Your task to perform on an android device: turn off data saver in the chrome app Image 0: 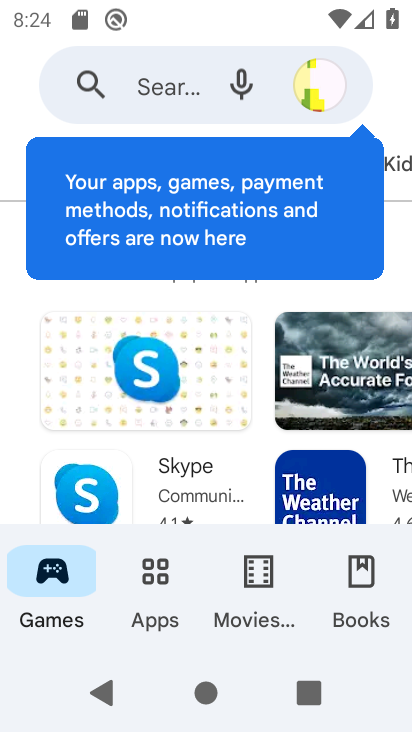
Step 0: press home button
Your task to perform on an android device: turn off data saver in the chrome app Image 1: 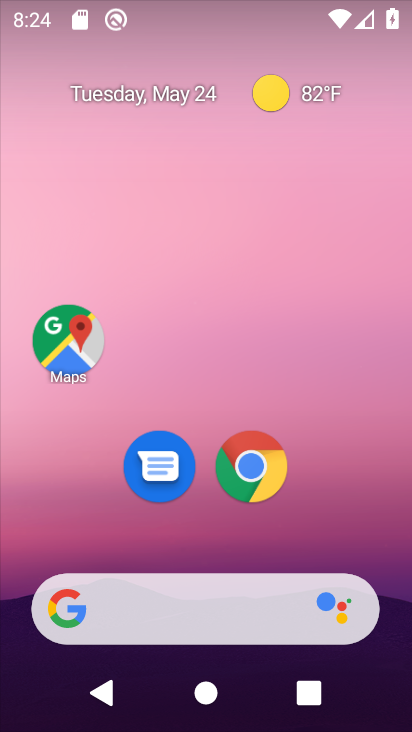
Step 1: click (250, 472)
Your task to perform on an android device: turn off data saver in the chrome app Image 2: 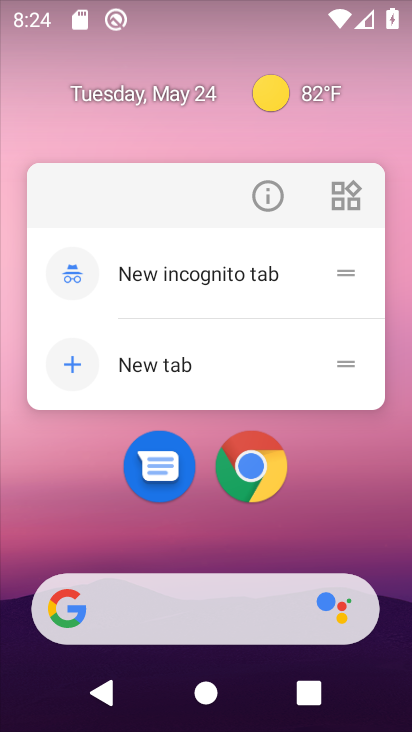
Step 2: click (250, 472)
Your task to perform on an android device: turn off data saver in the chrome app Image 3: 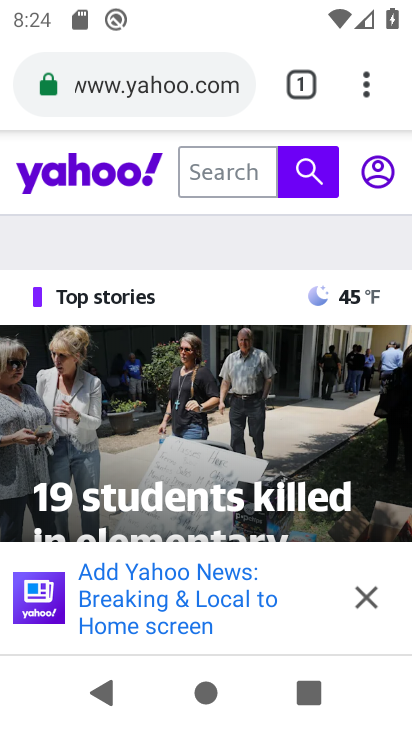
Step 3: click (360, 601)
Your task to perform on an android device: turn off data saver in the chrome app Image 4: 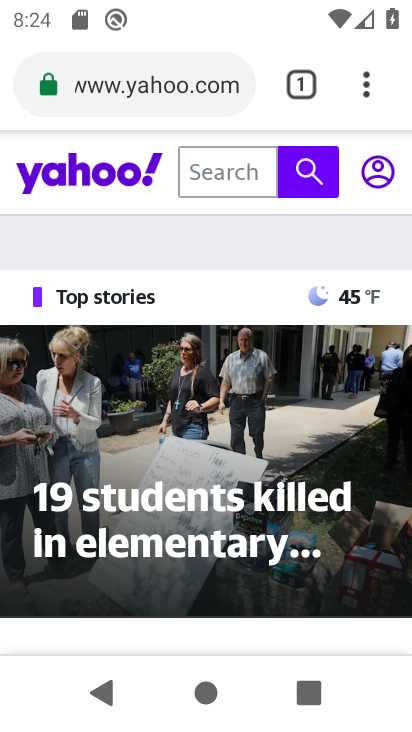
Step 4: press home button
Your task to perform on an android device: turn off data saver in the chrome app Image 5: 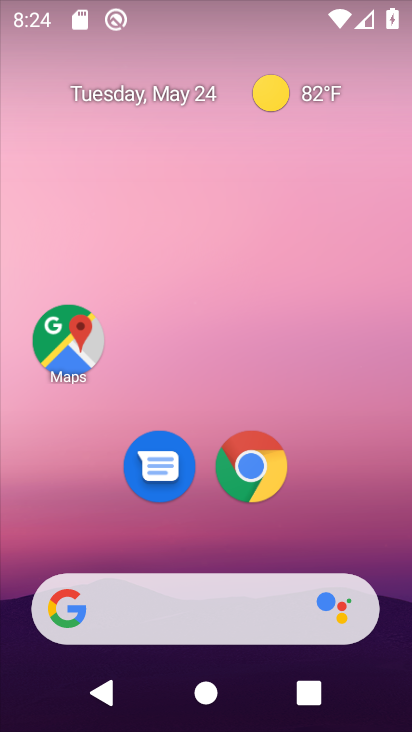
Step 5: click (237, 454)
Your task to perform on an android device: turn off data saver in the chrome app Image 6: 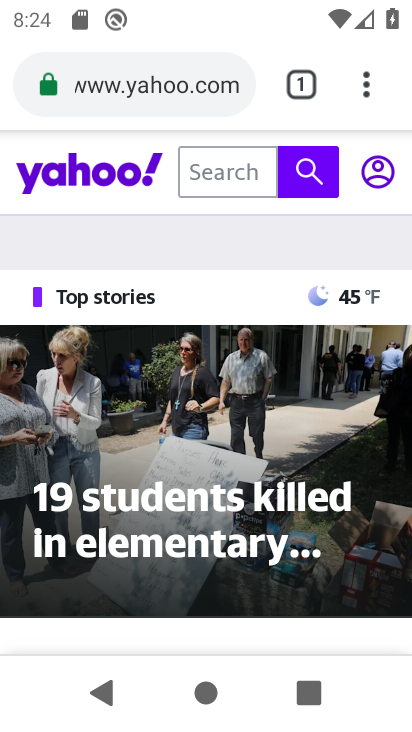
Step 6: click (369, 81)
Your task to perform on an android device: turn off data saver in the chrome app Image 7: 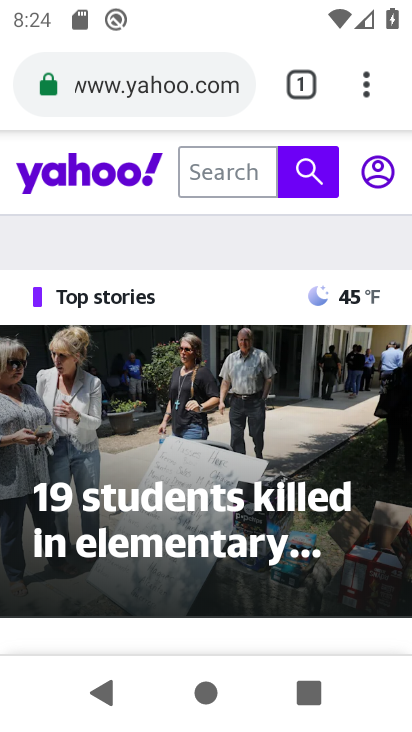
Step 7: click (369, 81)
Your task to perform on an android device: turn off data saver in the chrome app Image 8: 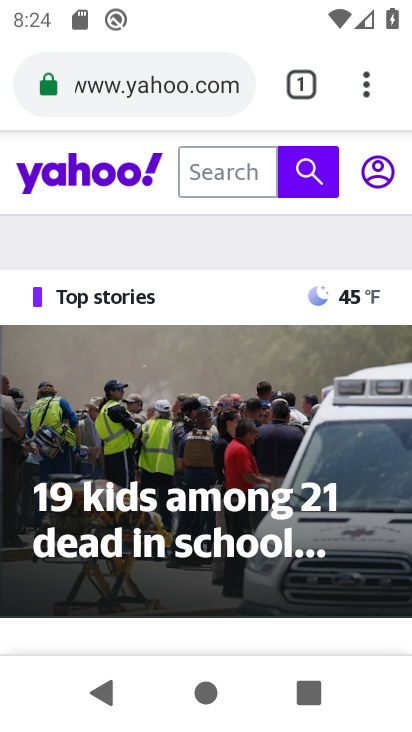
Step 8: click (369, 81)
Your task to perform on an android device: turn off data saver in the chrome app Image 9: 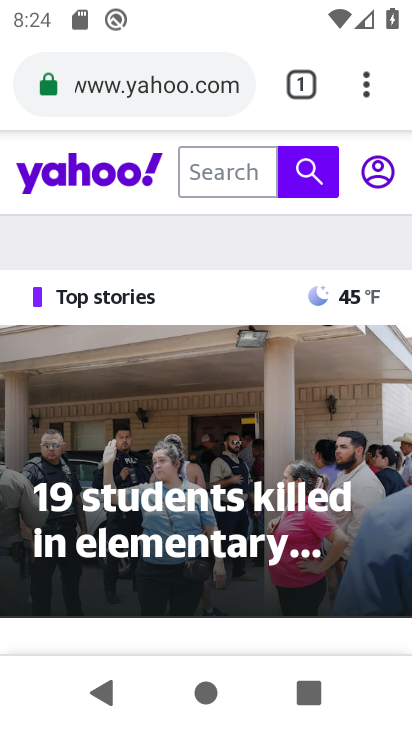
Step 9: click (363, 90)
Your task to perform on an android device: turn off data saver in the chrome app Image 10: 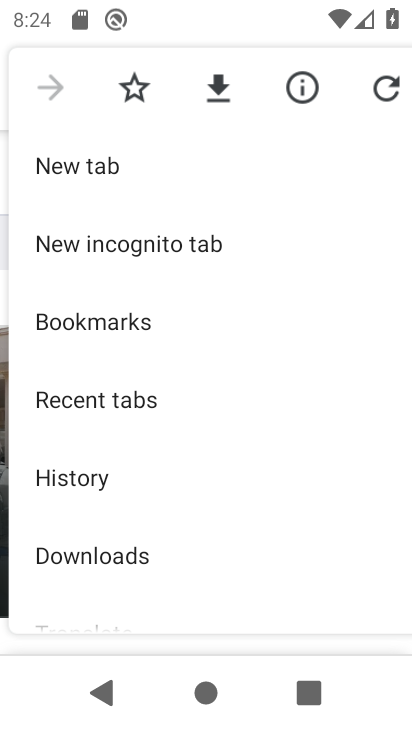
Step 10: drag from (189, 585) to (189, 207)
Your task to perform on an android device: turn off data saver in the chrome app Image 11: 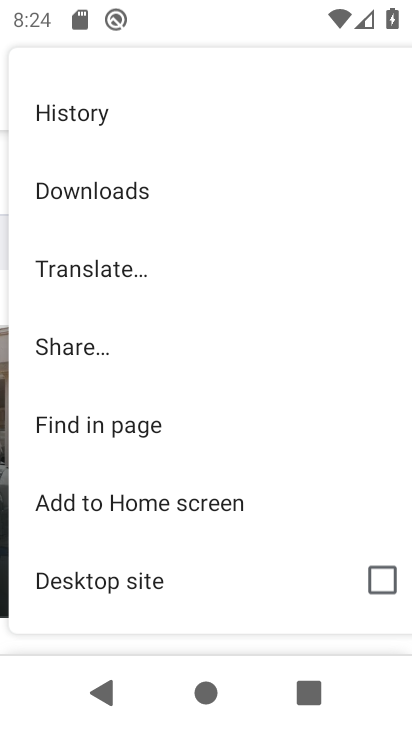
Step 11: drag from (123, 597) to (130, 310)
Your task to perform on an android device: turn off data saver in the chrome app Image 12: 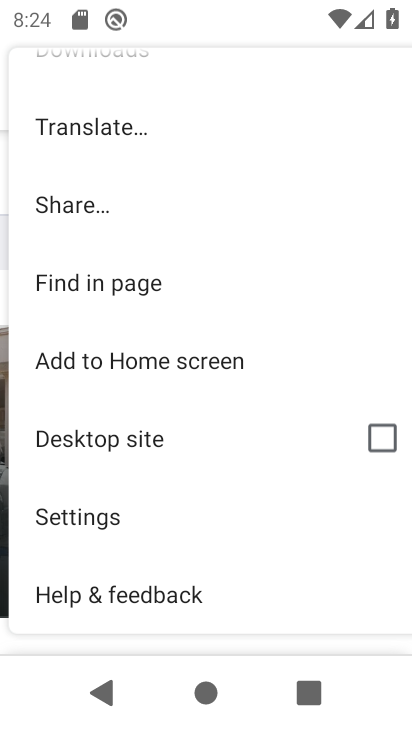
Step 12: click (107, 529)
Your task to perform on an android device: turn off data saver in the chrome app Image 13: 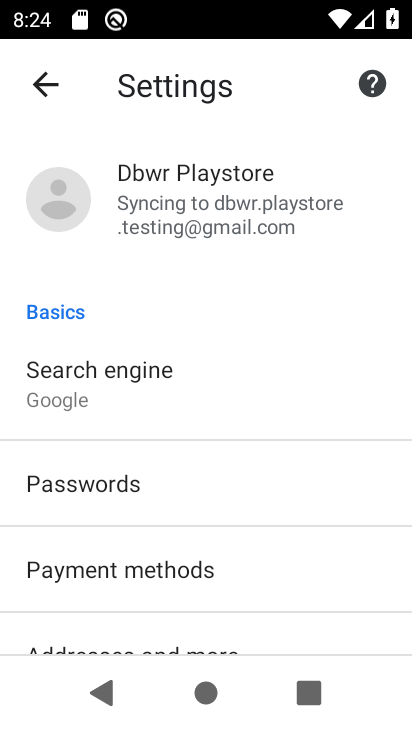
Step 13: drag from (118, 645) to (109, 329)
Your task to perform on an android device: turn off data saver in the chrome app Image 14: 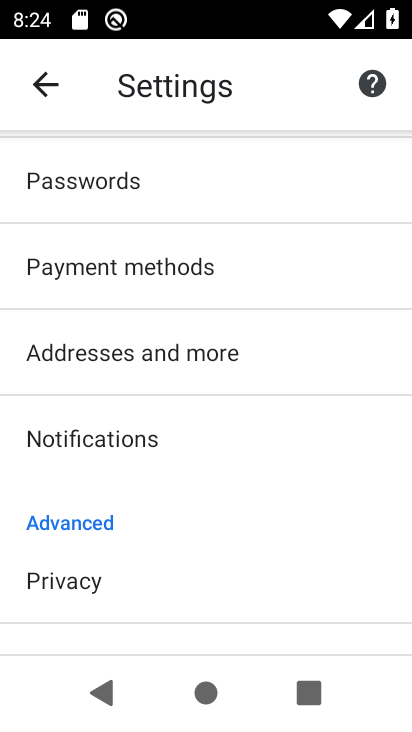
Step 14: drag from (88, 637) to (96, 352)
Your task to perform on an android device: turn off data saver in the chrome app Image 15: 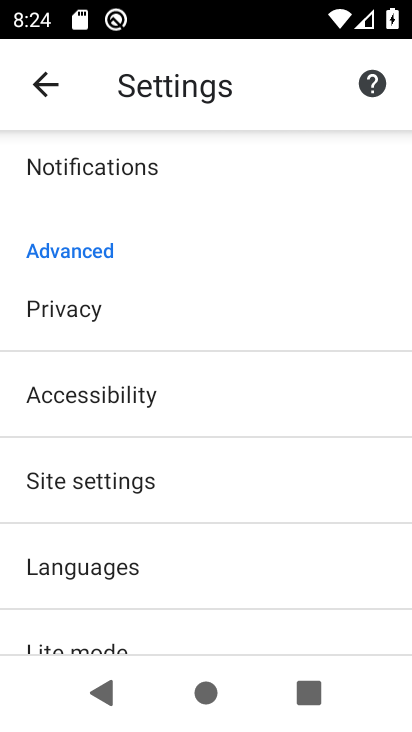
Step 15: click (58, 642)
Your task to perform on an android device: turn off data saver in the chrome app Image 16: 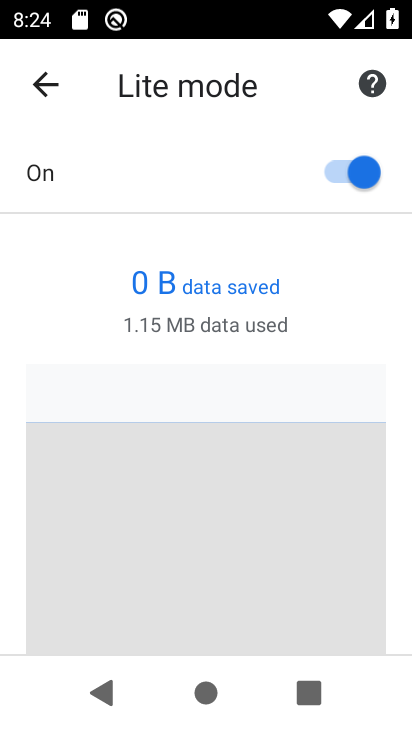
Step 16: click (330, 170)
Your task to perform on an android device: turn off data saver in the chrome app Image 17: 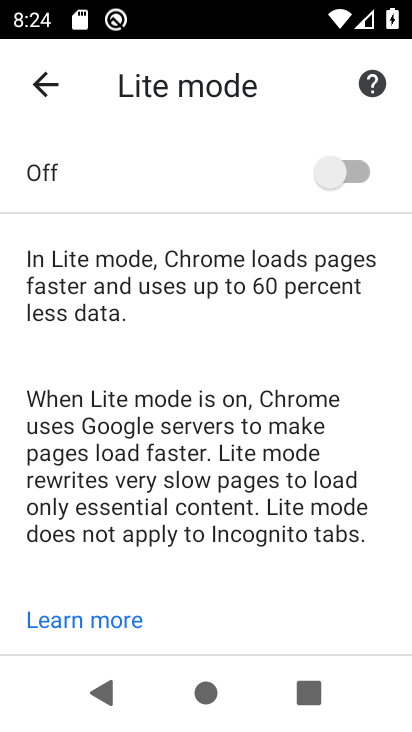
Step 17: task complete